Your task to perform on an android device: move a message to another label in the gmail app Image 0: 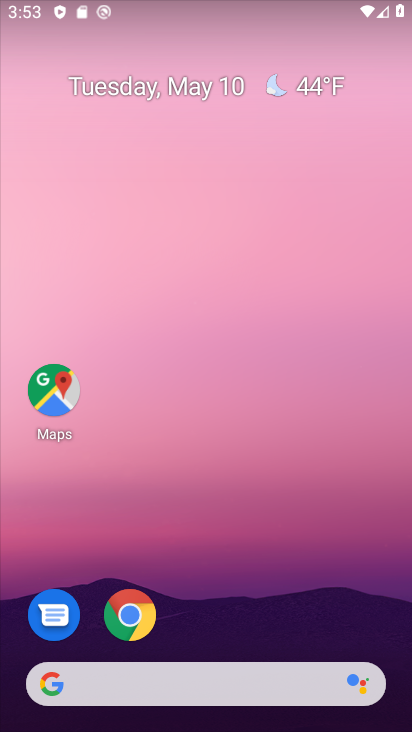
Step 0: drag from (229, 720) to (230, 264)
Your task to perform on an android device: move a message to another label in the gmail app Image 1: 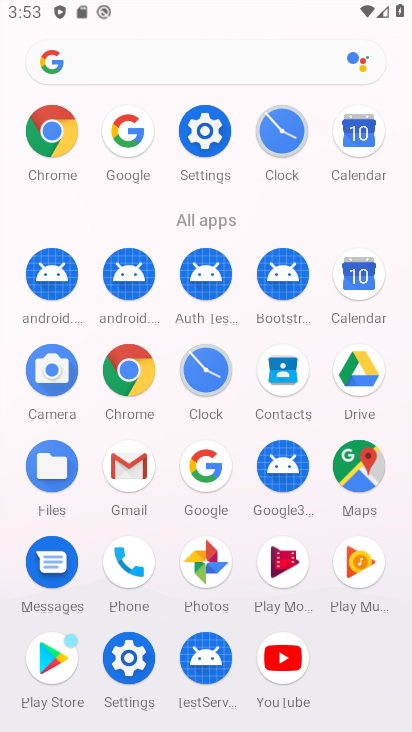
Step 1: click (127, 469)
Your task to perform on an android device: move a message to another label in the gmail app Image 2: 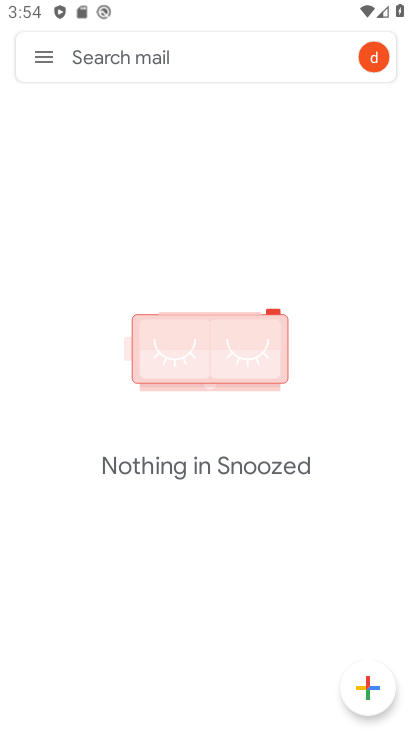
Step 2: click (47, 54)
Your task to perform on an android device: move a message to another label in the gmail app Image 3: 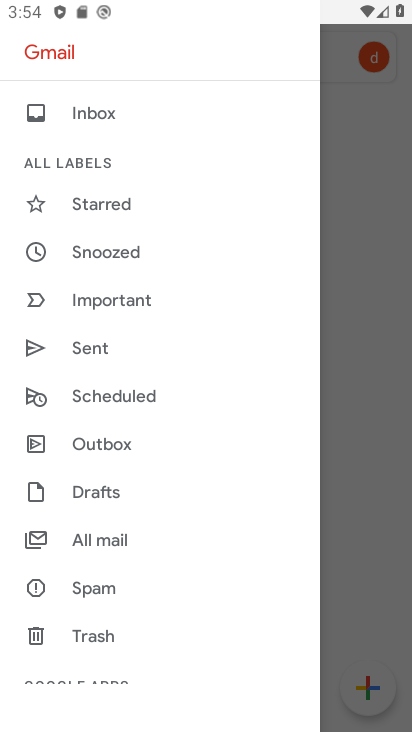
Step 3: click (101, 116)
Your task to perform on an android device: move a message to another label in the gmail app Image 4: 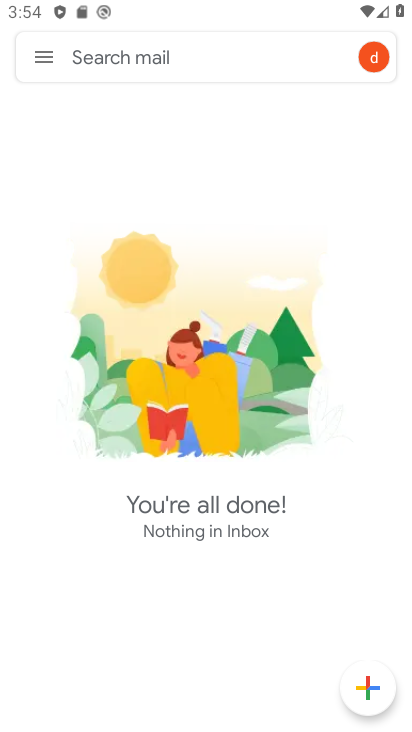
Step 4: task complete